Your task to perform on an android device: Go to internet settings Image 0: 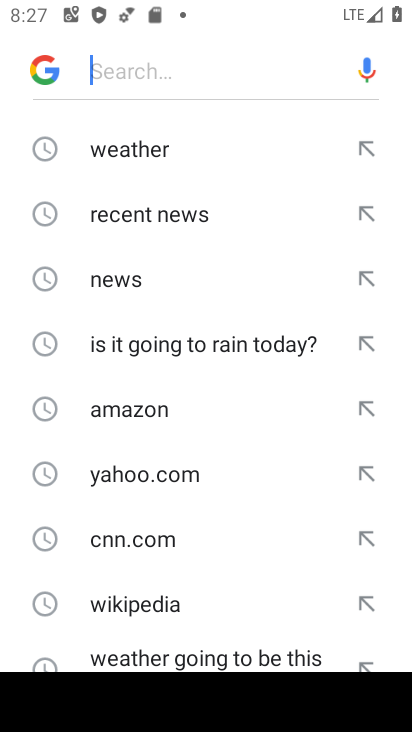
Step 0: press home button
Your task to perform on an android device: Go to internet settings Image 1: 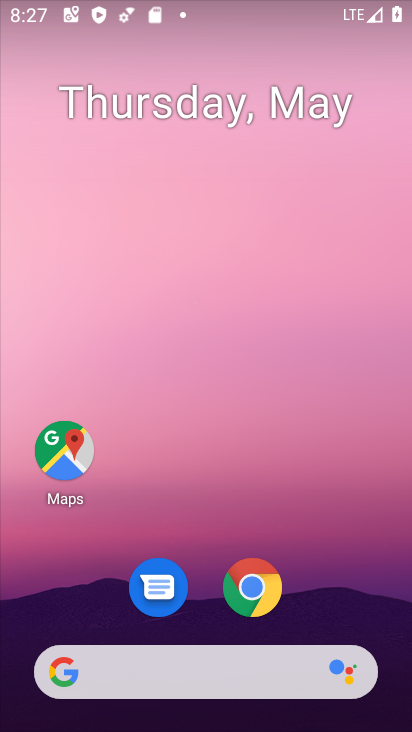
Step 1: drag from (136, 731) to (235, 88)
Your task to perform on an android device: Go to internet settings Image 2: 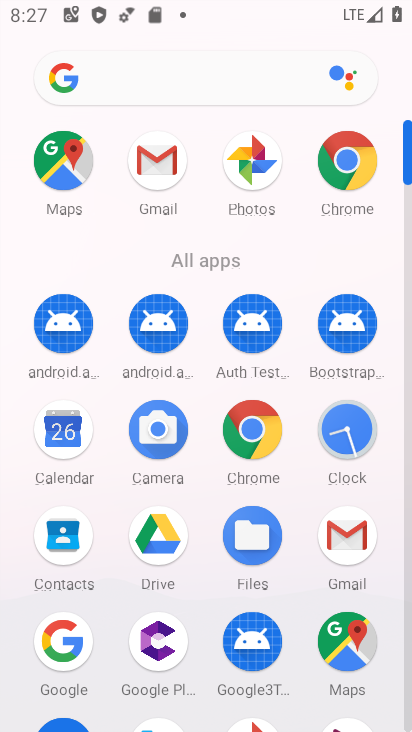
Step 2: drag from (113, 493) to (113, 166)
Your task to perform on an android device: Go to internet settings Image 3: 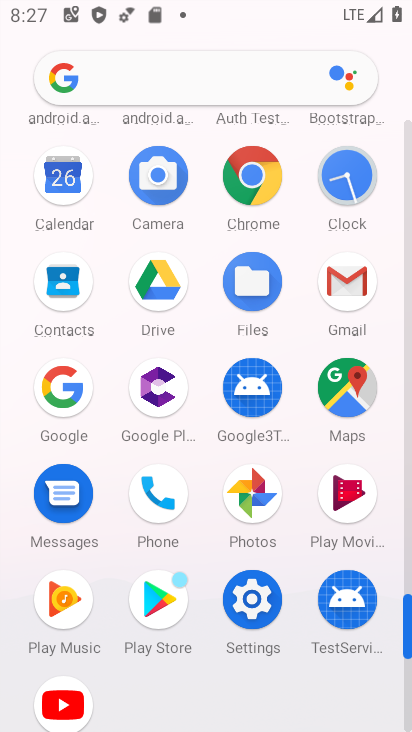
Step 3: click (252, 614)
Your task to perform on an android device: Go to internet settings Image 4: 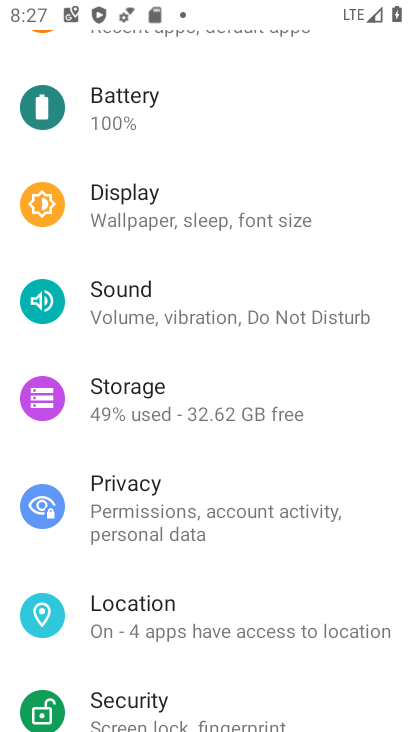
Step 4: drag from (220, 79) to (253, 617)
Your task to perform on an android device: Go to internet settings Image 5: 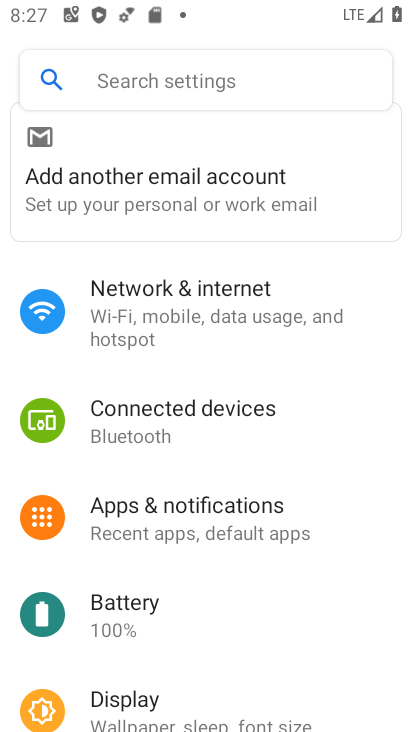
Step 5: click (260, 316)
Your task to perform on an android device: Go to internet settings Image 6: 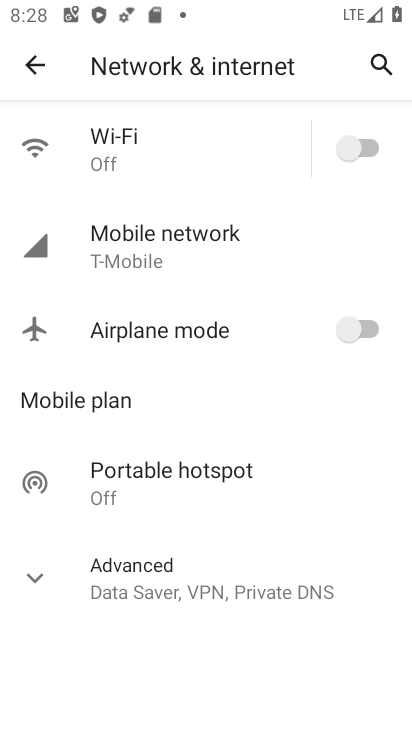
Step 6: click (195, 271)
Your task to perform on an android device: Go to internet settings Image 7: 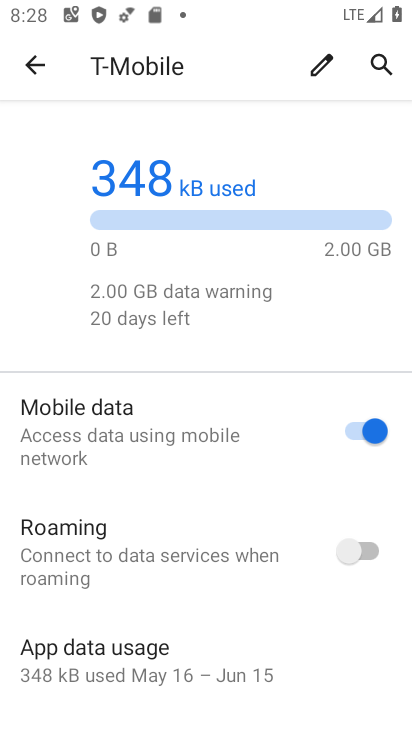
Step 7: drag from (205, 635) to (202, 227)
Your task to perform on an android device: Go to internet settings Image 8: 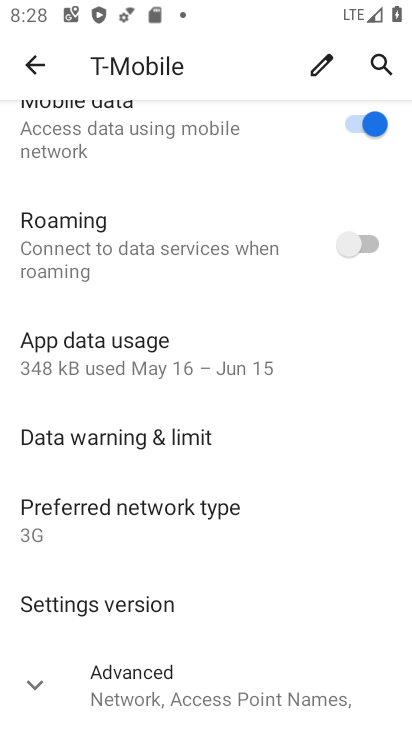
Step 8: click (220, 697)
Your task to perform on an android device: Go to internet settings Image 9: 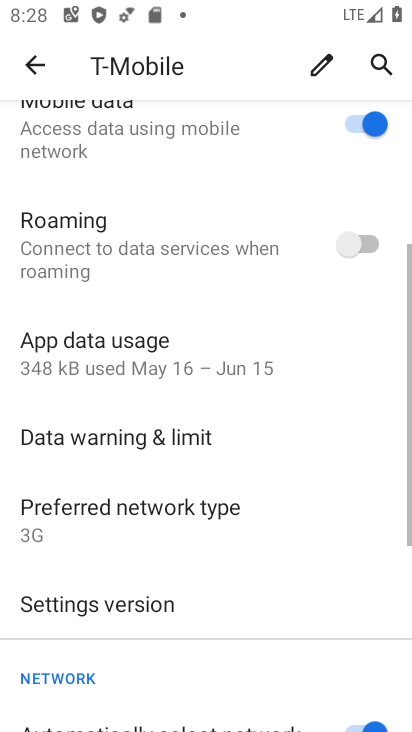
Step 9: task complete